Your task to perform on an android device: turn on the 24-hour format for clock Image 0: 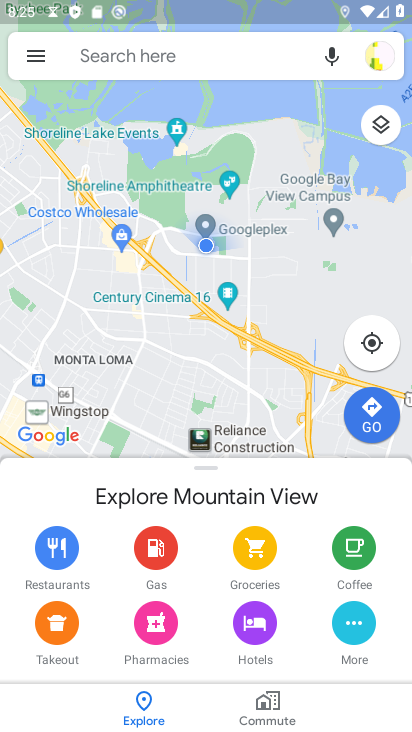
Step 0: press back button
Your task to perform on an android device: turn on the 24-hour format for clock Image 1: 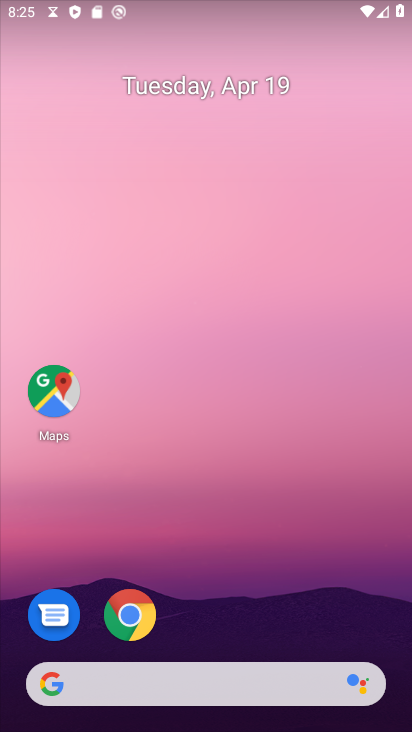
Step 1: drag from (244, 446) to (137, 32)
Your task to perform on an android device: turn on the 24-hour format for clock Image 2: 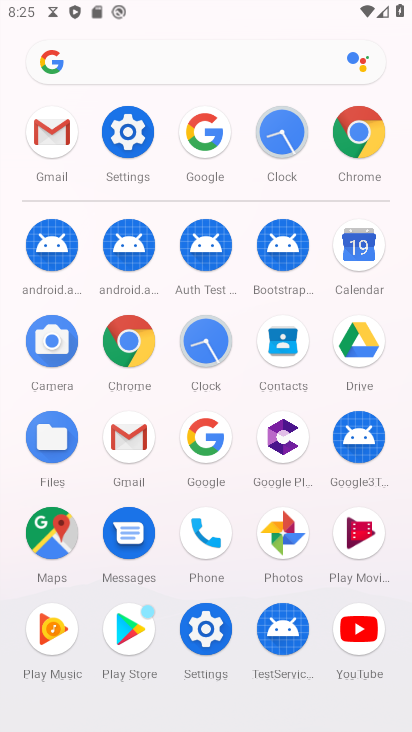
Step 2: click (279, 127)
Your task to perform on an android device: turn on the 24-hour format for clock Image 3: 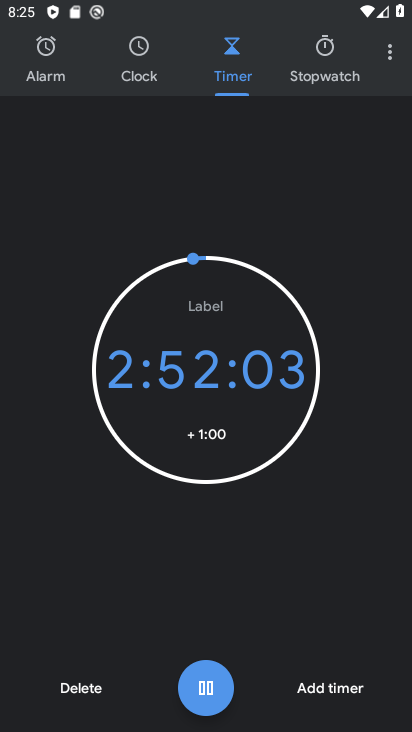
Step 3: click (390, 61)
Your task to perform on an android device: turn on the 24-hour format for clock Image 4: 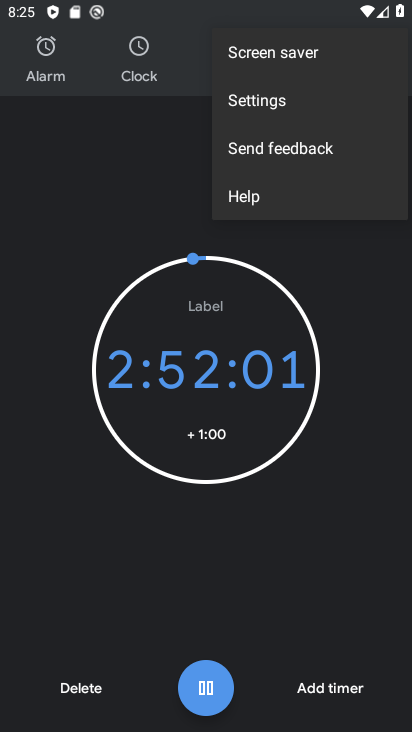
Step 4: click (299, 92)
Your task to perform on an android device: turn on the 24-hour format for clock Image 5: 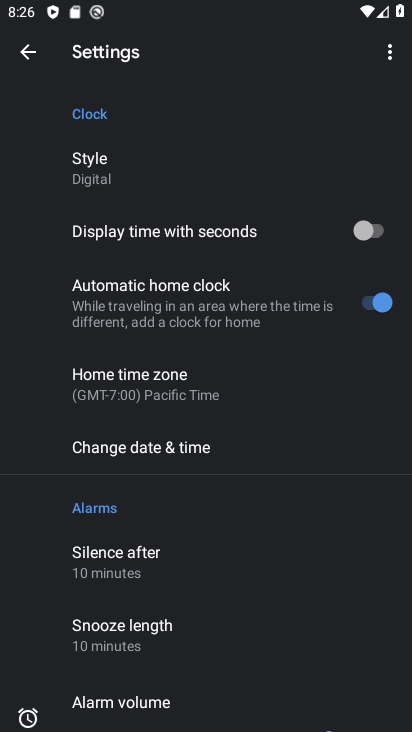
Step 5: click (196, 449)
Your task to perform on an android device: turn on the 24-hour format for clock Image 6: 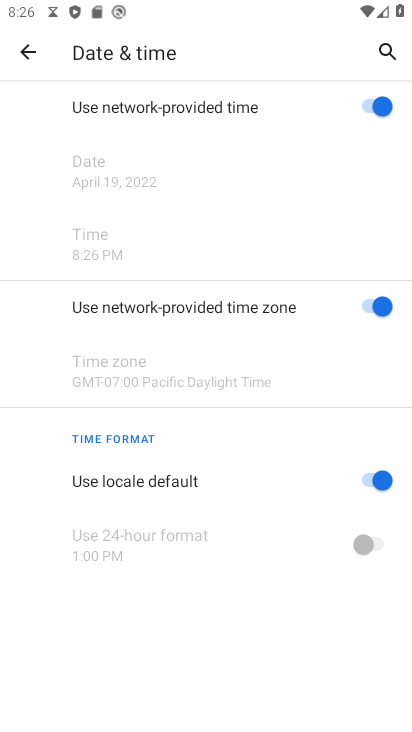
Step 6: click (373, 477)
Your task to perform on an android device: turn on the 24-hour format for clock Image 7: 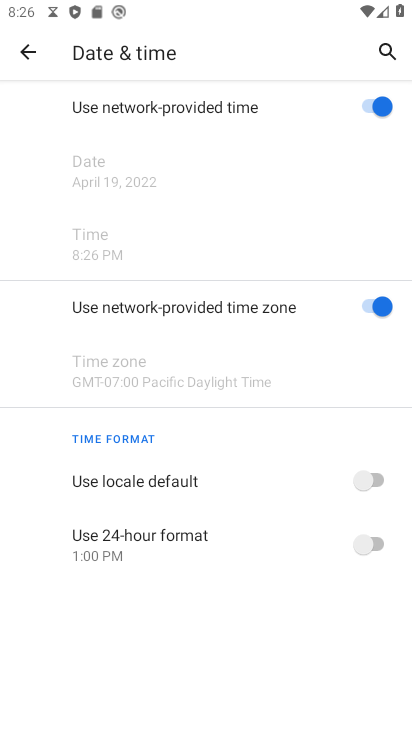
Step 7: click (367, 529)
Your task to perform on an android device: turn on the 24-hour format for clock Image 8: 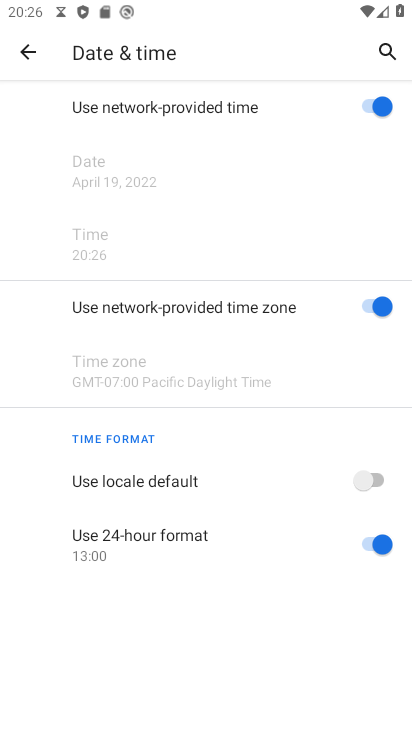
Step 8: task complete